Your task to perform on an android device: clear history in the chrome app Image 0: 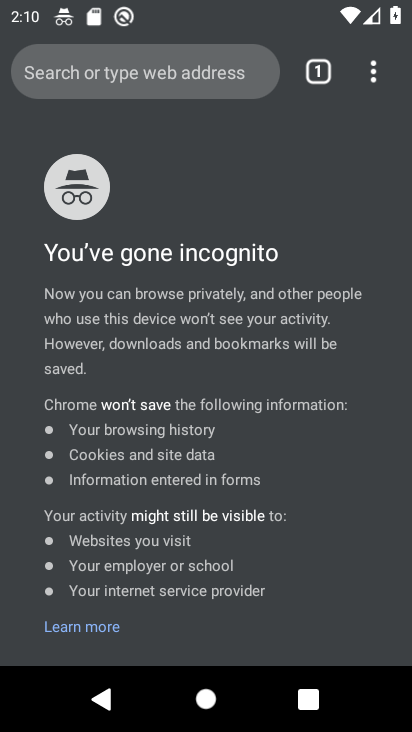
Step 0: press home button
Your task to perform on an android device: clear history in the chrome app Image 1: 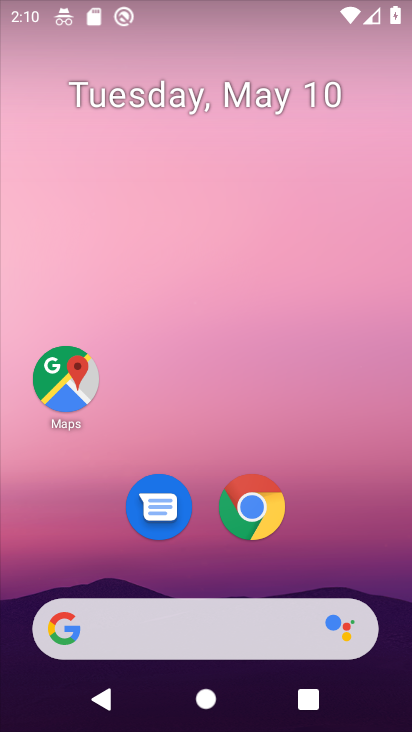
Step 1: drag from (104, 536) to (146, 243)
Your task to perform on an android device: clear history in the chrome app Image 2: 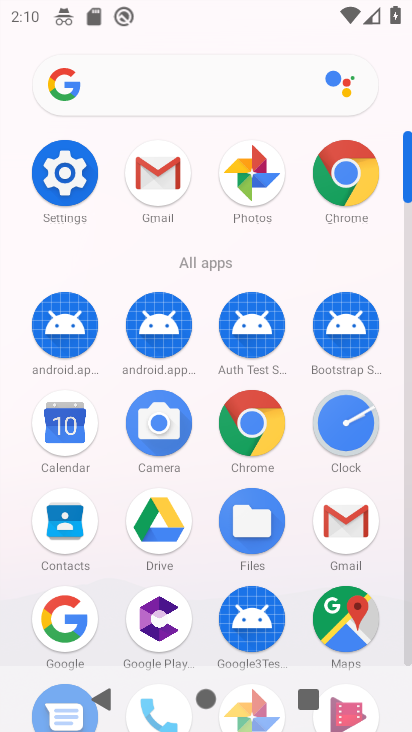
Step 2: click (250, 422)
Your task to perform on an android device: clear history in the chrome app Image 3: 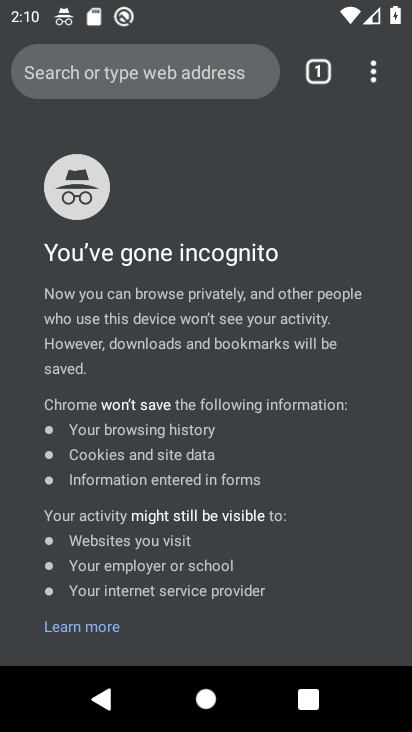
Step 3: press home button
Your task to perform on an android device: clear history in the chrome app Image 4: 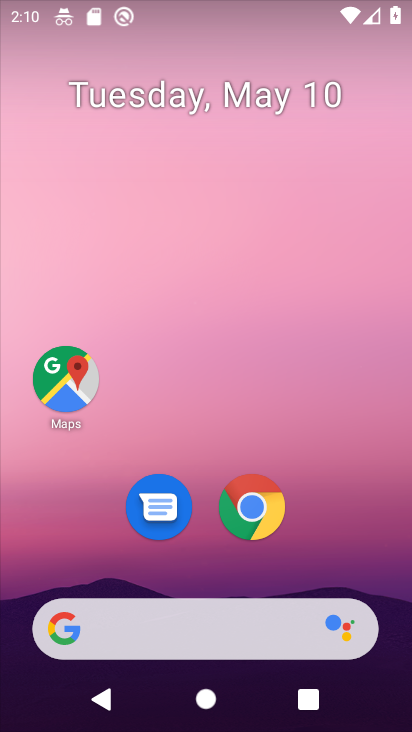
Step 4: click (252, 505)
Your task to perform on an android device: clear history in the chrome app Image 5: 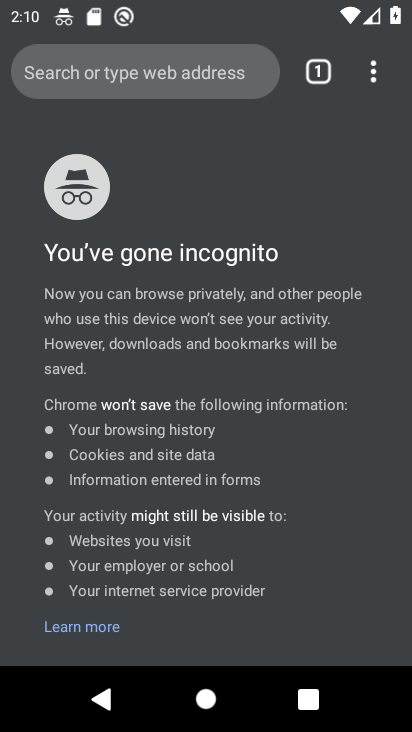
Step 5: click (376, 78)
Your task to perform on an android device: clear history in the chrome app Image 6: 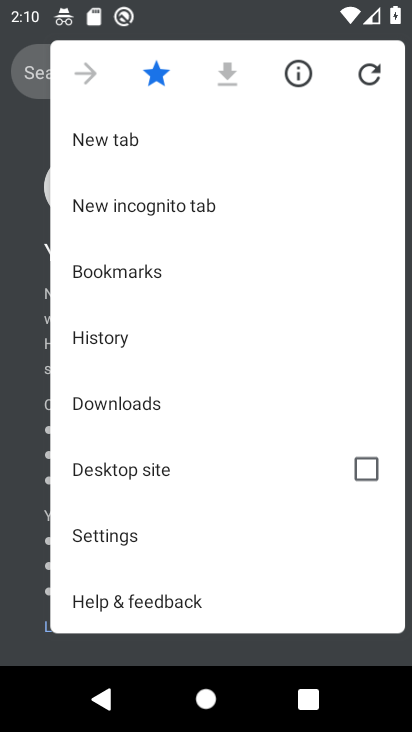
Step 6: click (119, 335)
Your task to perform on an android device: clear history in the chrome app Image 7: 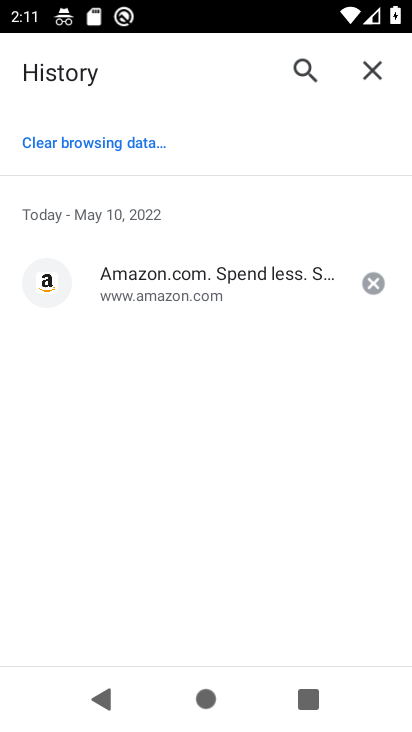
Step 7: click (94, 135)
Your task to perform on an android device: clear history in the chrome app Image 8: 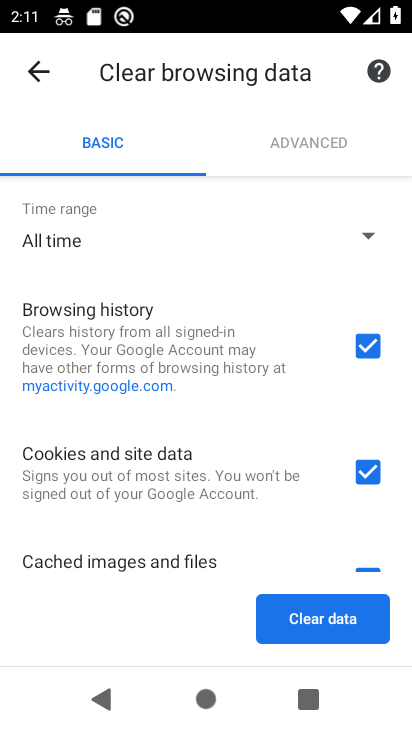
Step 8: click (360, 466)
Your task to perform on an android device: clear history in the chrome app Image 9: 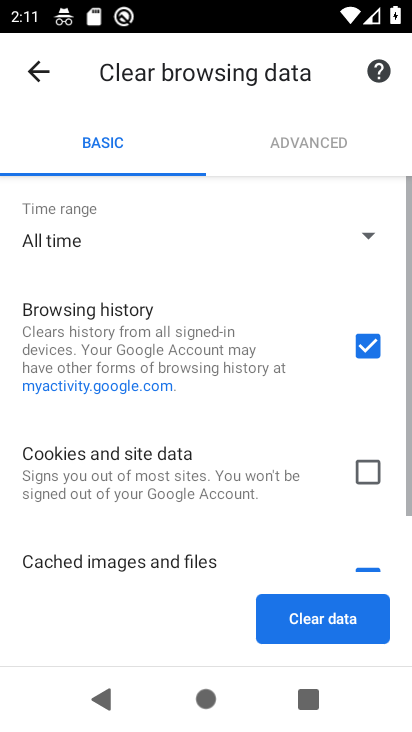
Step 9: drag from (303, 526) to (310, 282)
Your task to perform on an android device: clear history in the chrome app Image 10: 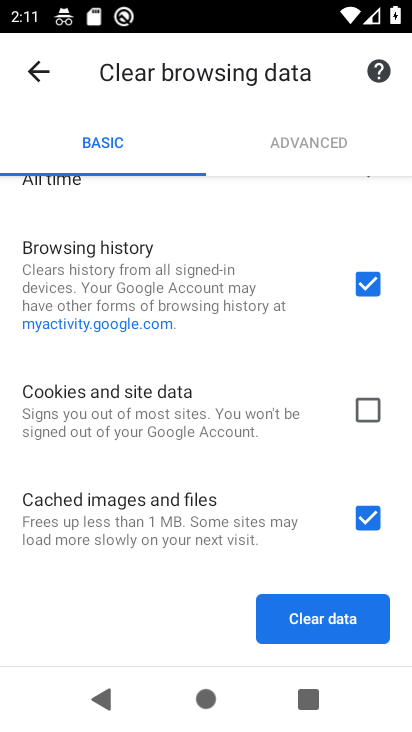
Step 10: click (362, 520)
Your task to perform on an android device: clear history in the chrome app Image 11: 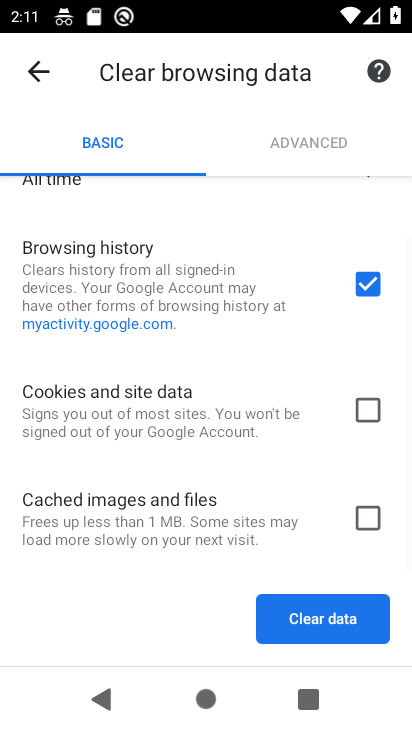
Step 11: click (336, 631)
Your task to perform on an android device: clear history in the chrome app Image 12: 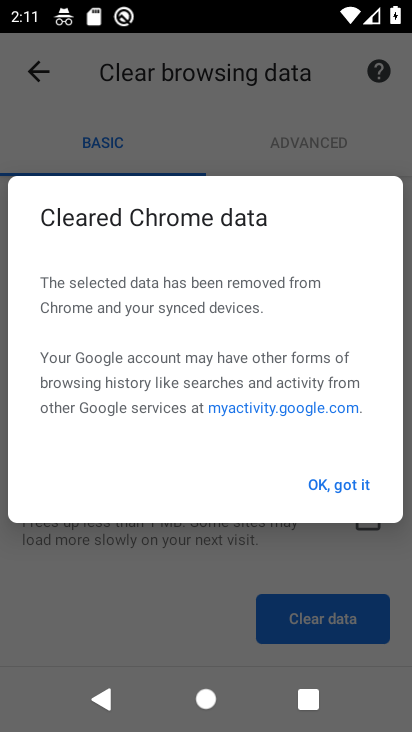
Step 12: click (355, 476)
Your task to perform on an android device: clear history in the chrome app Image 13: 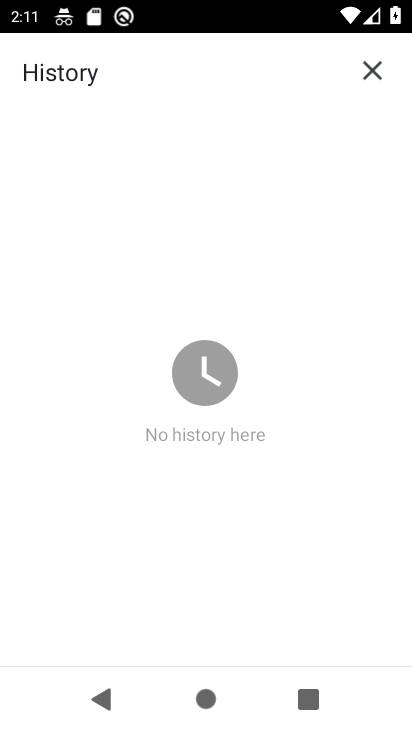
Step 13: task complete